Your task to perform on an android device: Open Chrome and go to the settings page Image 0: 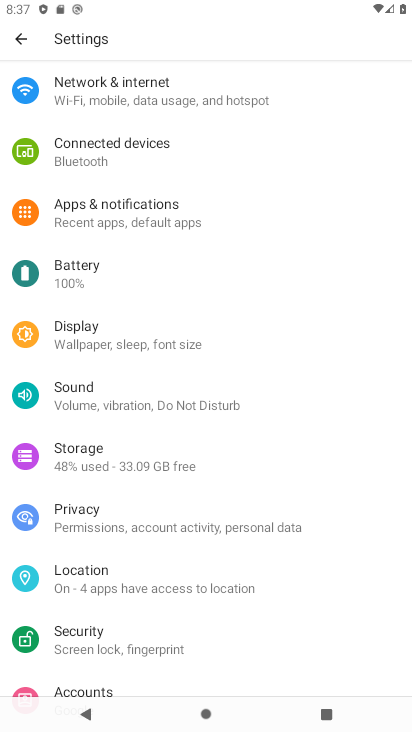
Step 0: drag from (187, 265) to (290, 504)
Your task to perform on an android device: Open Chrome and go to the settings page Image 1: 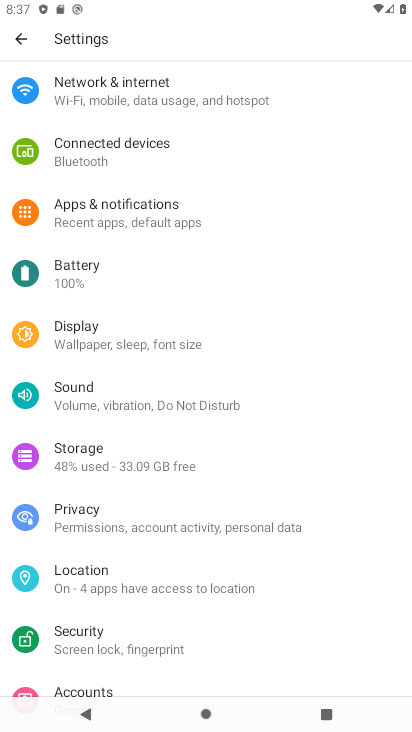
Step 1: press home button
Your task to perform on an android device: Open Chrome and go to the settings page Image 2: 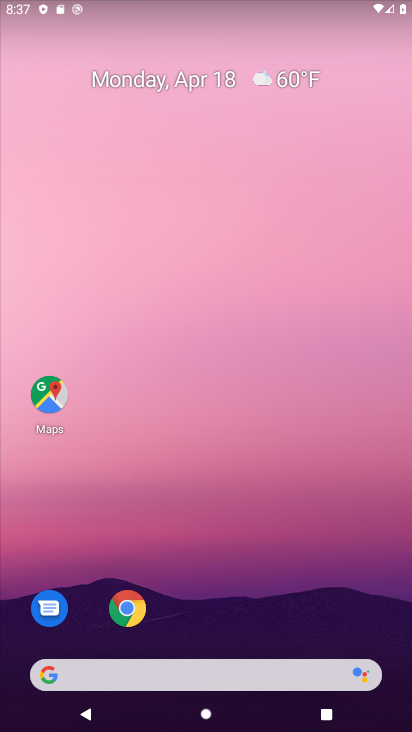
Step 2: click (129, 611)
Your task to perform on an android device: Open Chrome and go to the settings page Image 3: 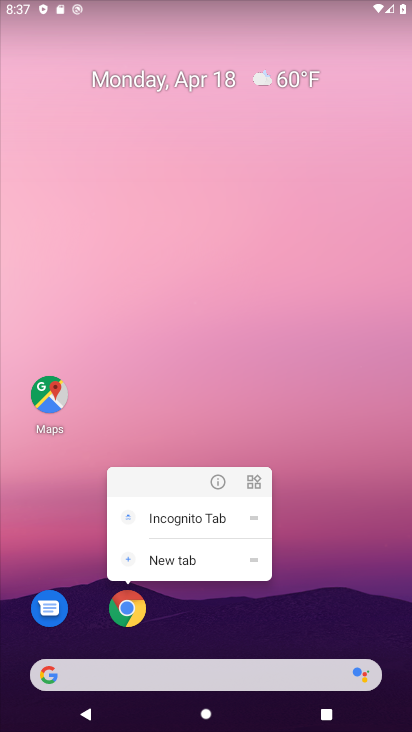
Step 3: click (227, 483)
Your task to perform on an android device: Open Chrome and go to the settings page Image 4: 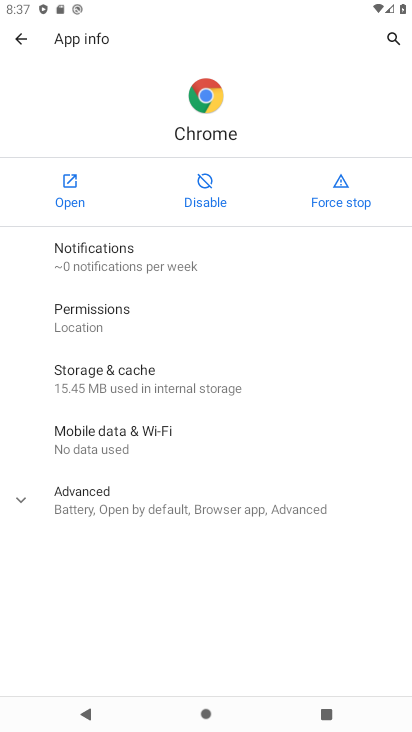
Step 4: click (96, 197)
Your task to perform on an android device: Open Chrome and go to the settings page Image 5: 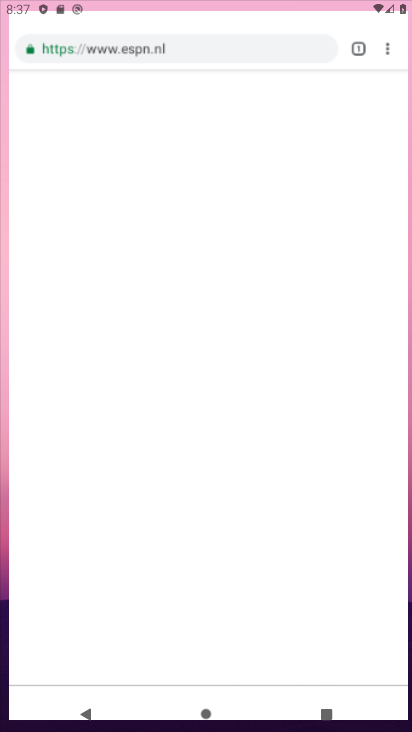
Step 5: drag from (73, 191) to (391, 4)
Your task to perform on an android device: Open Chrome and go to the settings page Image 6: 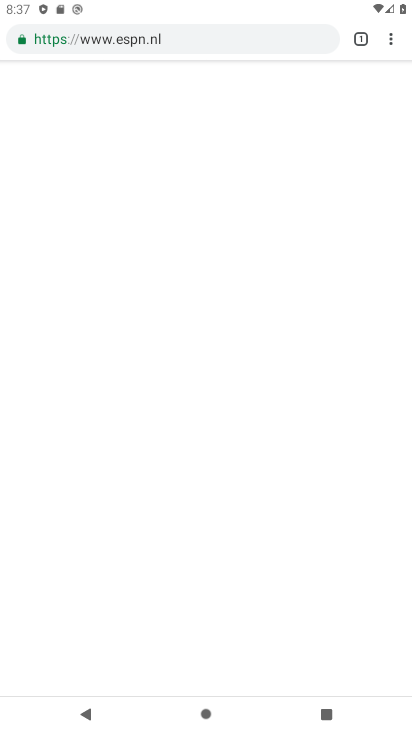
Step 6: click (357, 37)
Your task to perform on an android device: Open Chrome and go to the settings page Image 7: 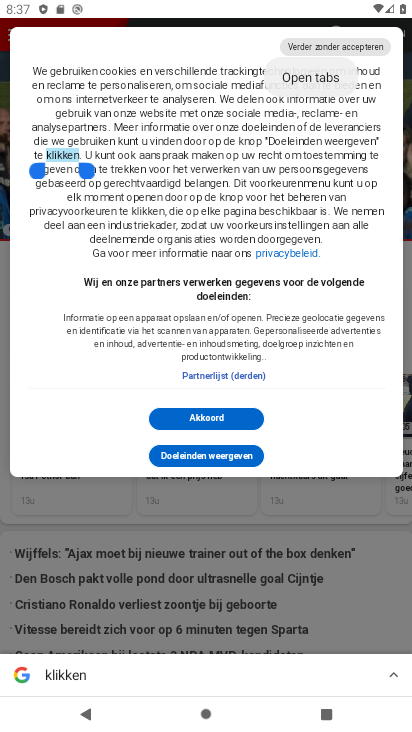
Step 7: click (247, 198)
Your task to perform on an android device: Open Chrome and go to the settings page Image 8: 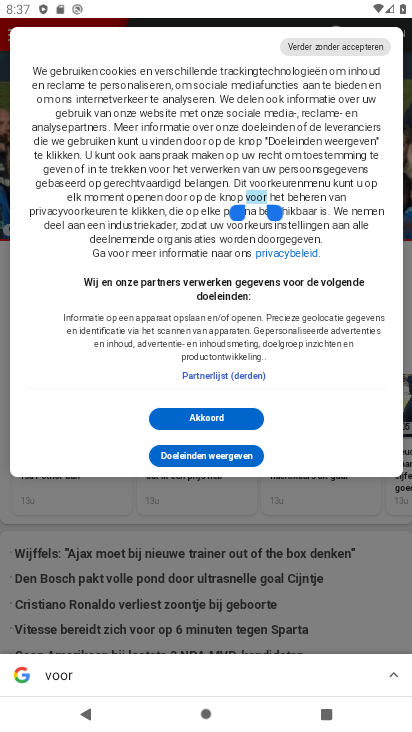
Step 8: drag from (280, 268) to (266, 407)
Your task to perform on an android device: Open Chrome and go to the settings page Image 9: 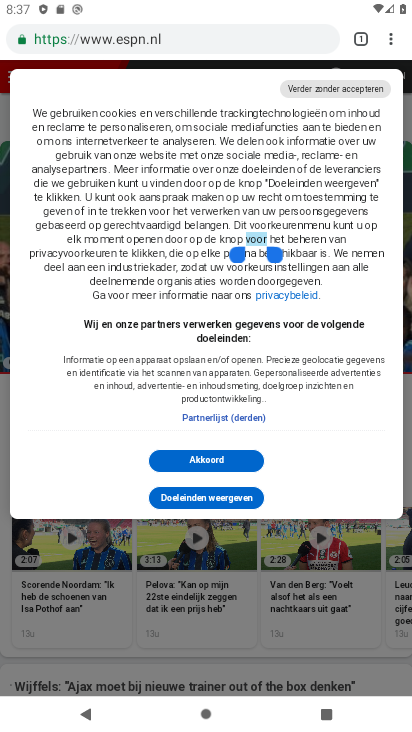
Step 9: click (387, 44)
Your task to perform on an android device: Open Chrome and go to the settings page Image 10: 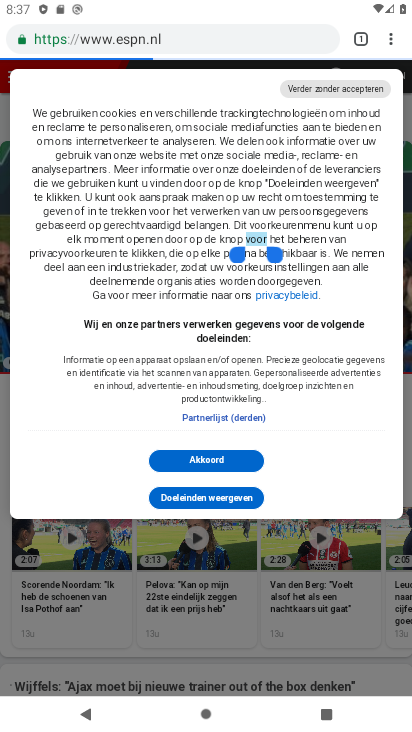
Step 10: task complete